Your task to perform on an android device: Find coffee shops on Maps Image 0: 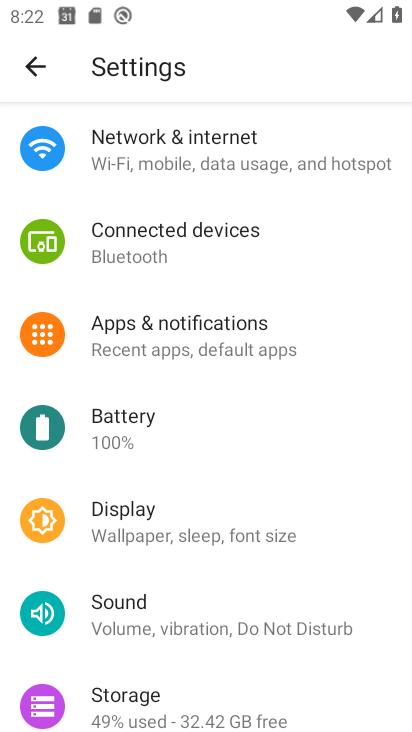
Step 0: press home button
Your task to perform on an android device: Find coffee shops on Maps Image 1: 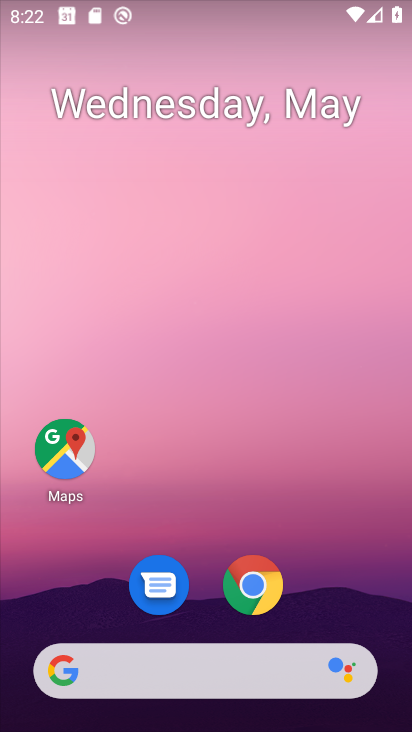
Step 1: drag from (271, 511) to (262, 31)
Your task to perform on an android device: Find coffee shops on Maps Image 2: 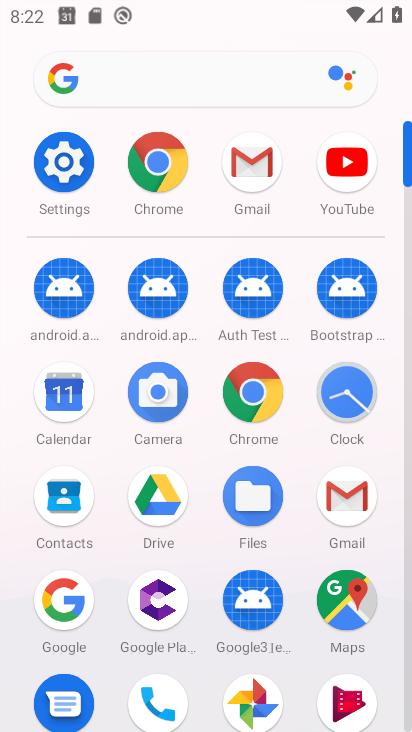
Step 2: click (348, 585)
Your task to perform on an android device: Find coffee shops on Maps Image 3: 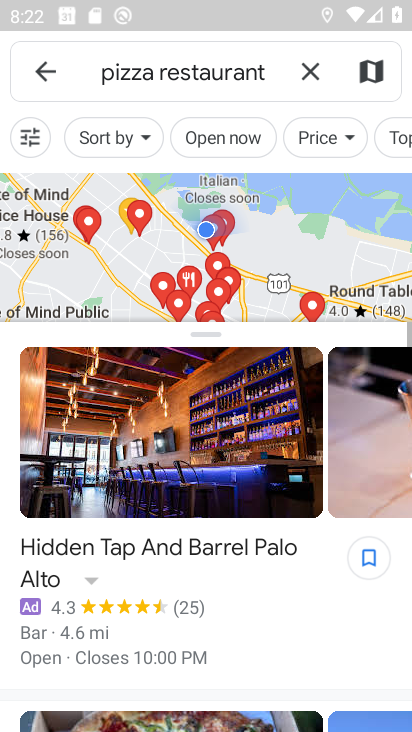
Step 3: click (307, 66)
Your task to perform on an android device: Find coffee shops on Maps Image 4: 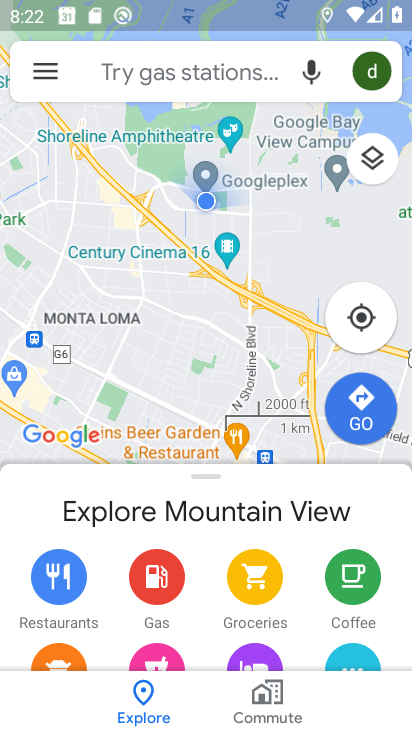
Step 4: click (214, 72)
Your task to perform on an android device: Find coffee shops on Maps Image 5: 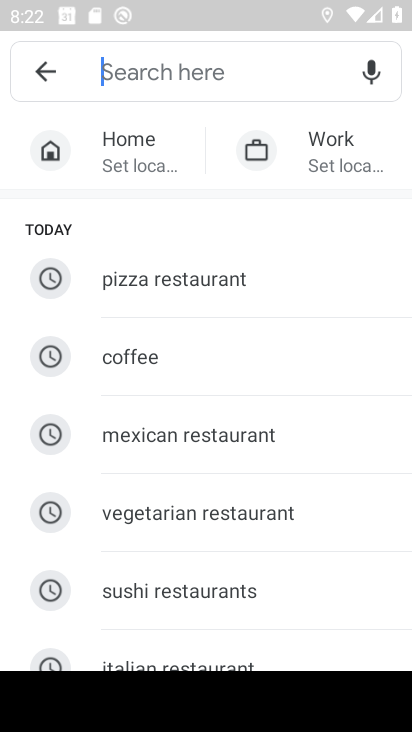
Step 5: click (181, 352)
Your task to perform on an android device: Find coffee shops on Maps Image 6: 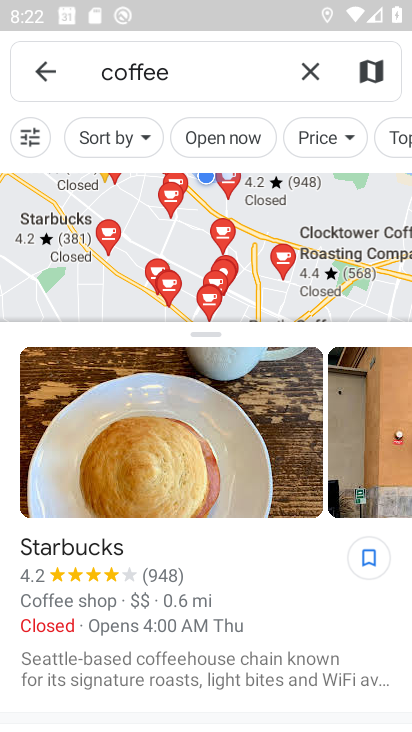
Step 6: task complete